Your task to perform on an android device: open device folders in google photos Image 0: 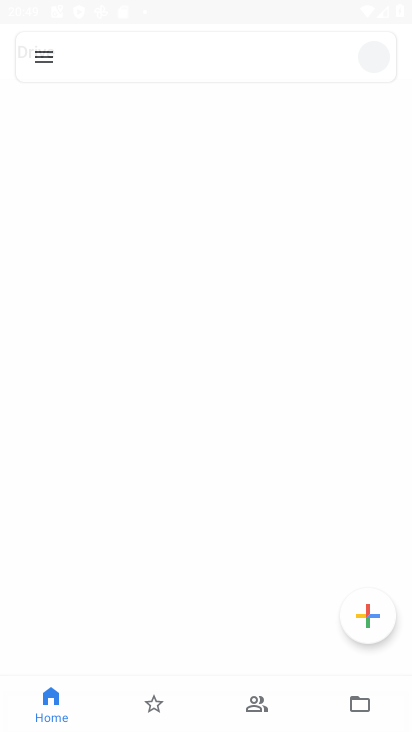
Step 0: click (51, 391)
Your task to perform on an android device: open device folders in google photos Image 1: 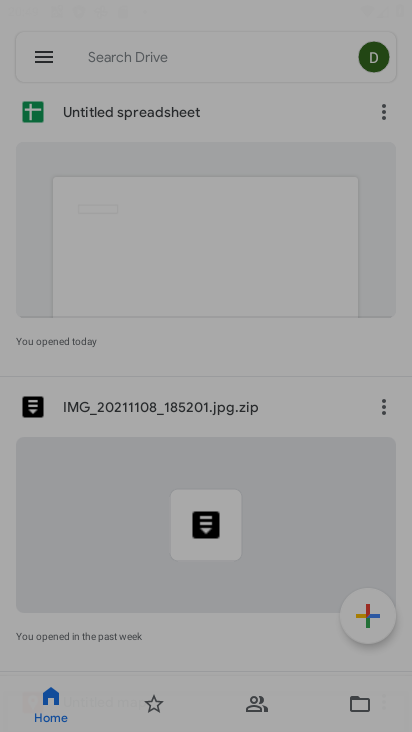
Step 1: press home button
Your task to perform on an android device: open device folders in google photos Image 2: 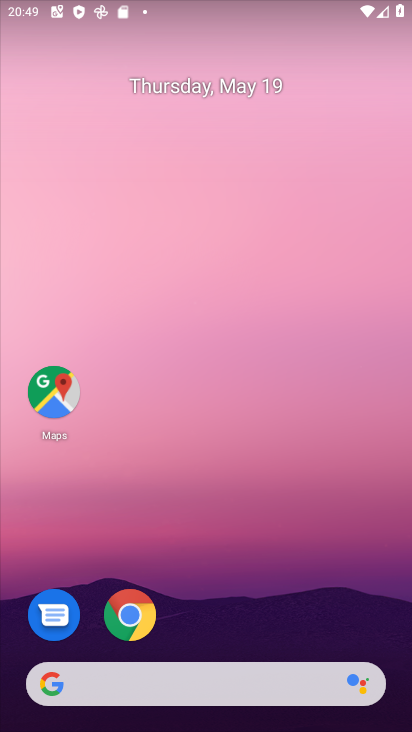
Step 2: drag from (244, 547) to (251, 51)
Your task to perform on an android device: open device folders in google photos Image 3: 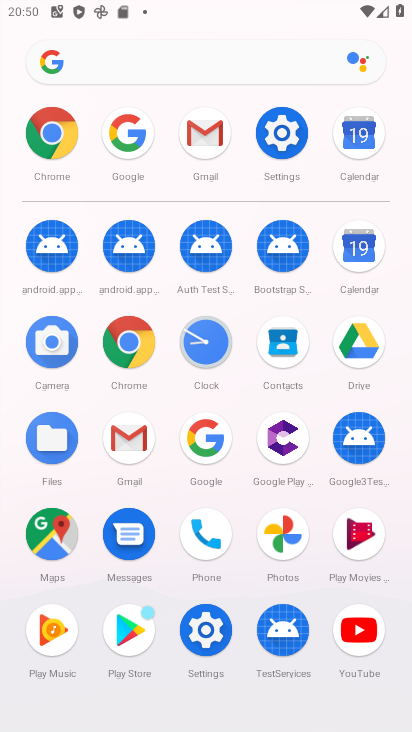
Step 3: click (284, 532)
Your task to perform on an android device: open device folders in google photos Image 4: 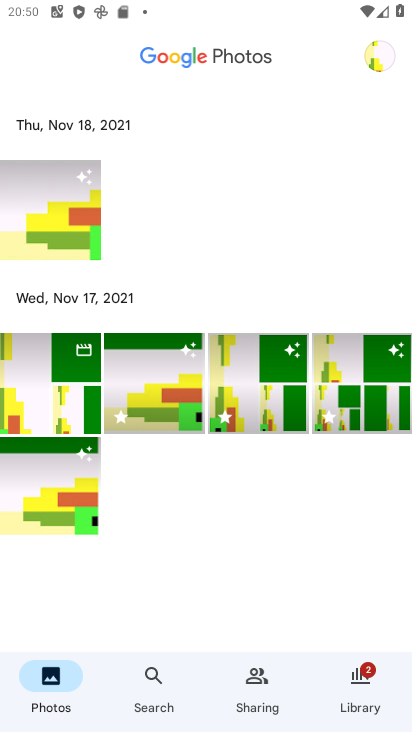
Step 4: task complete